Your task to perform on an android device: Show the shopping cart on target.com. Image 0: 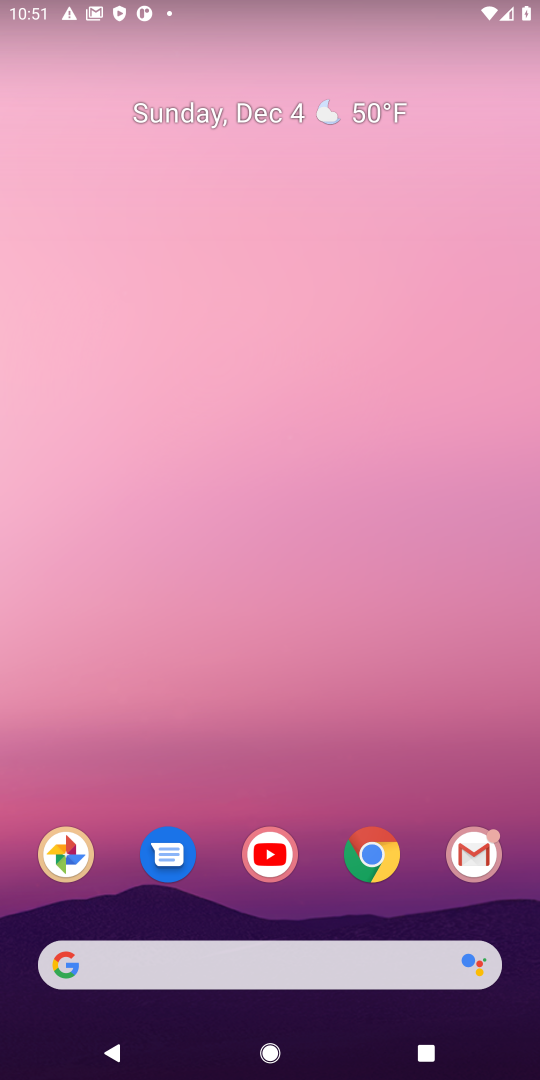
Step 0: click (188, 972)
Your task to perform on an android device: Show the shopping cart on target.com. Image 1: 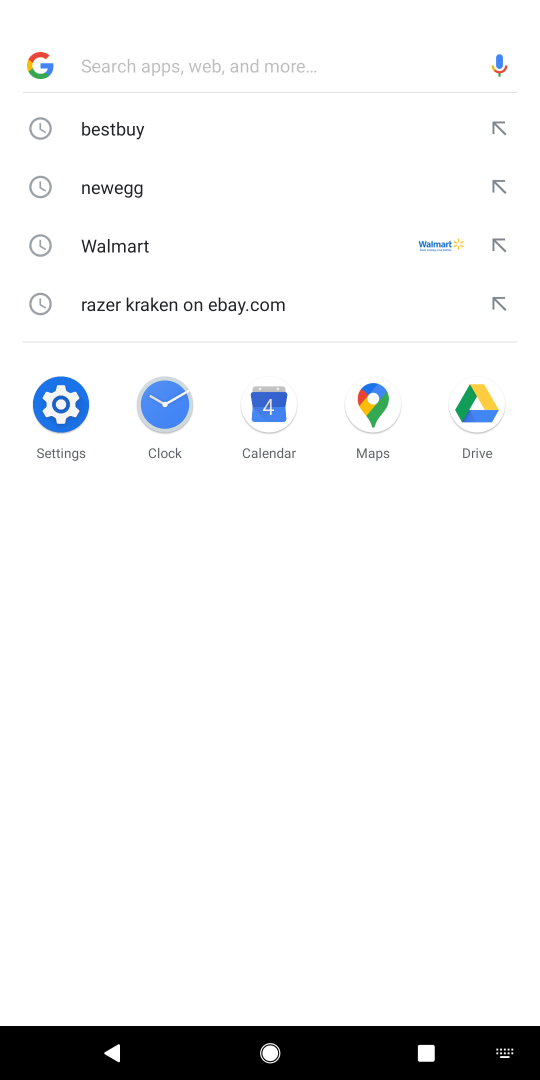
Step 1: type "target"
Your task to perform on an android device: Show the shopping cart on target.com. Image 2: 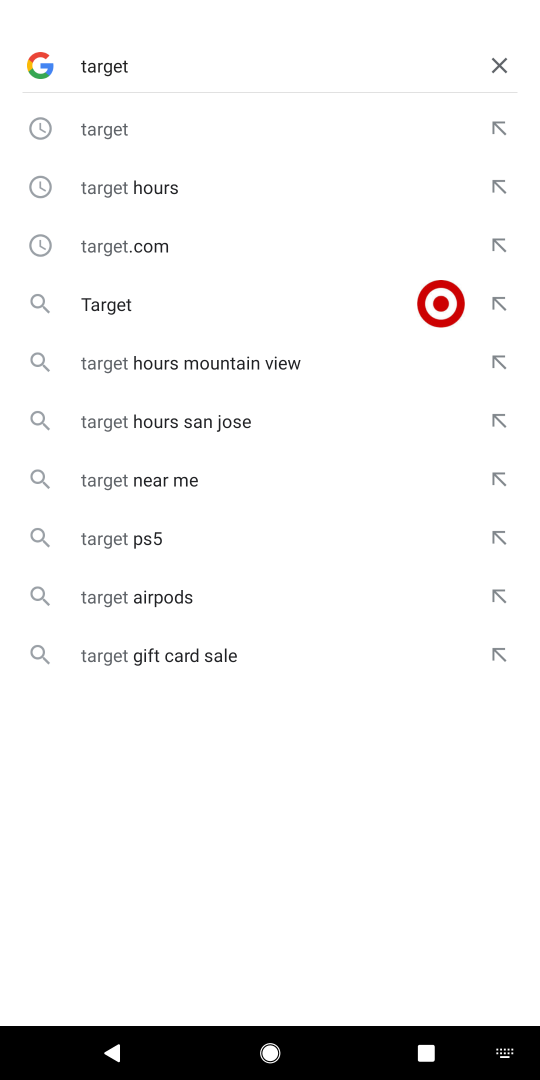
Step 2: click (107, 138)
Your task to perform on an android device: Show the shopping cart on target.com. Image 3: 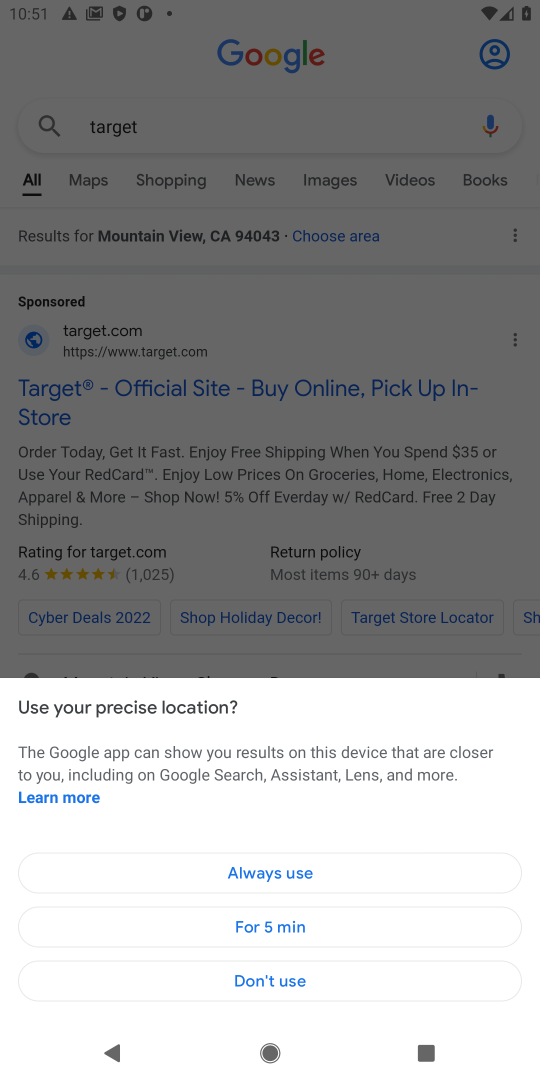
Step 3: click (300, 883)
Your task to perform on an android device: Show the shopping cart on target.com. Image 4: 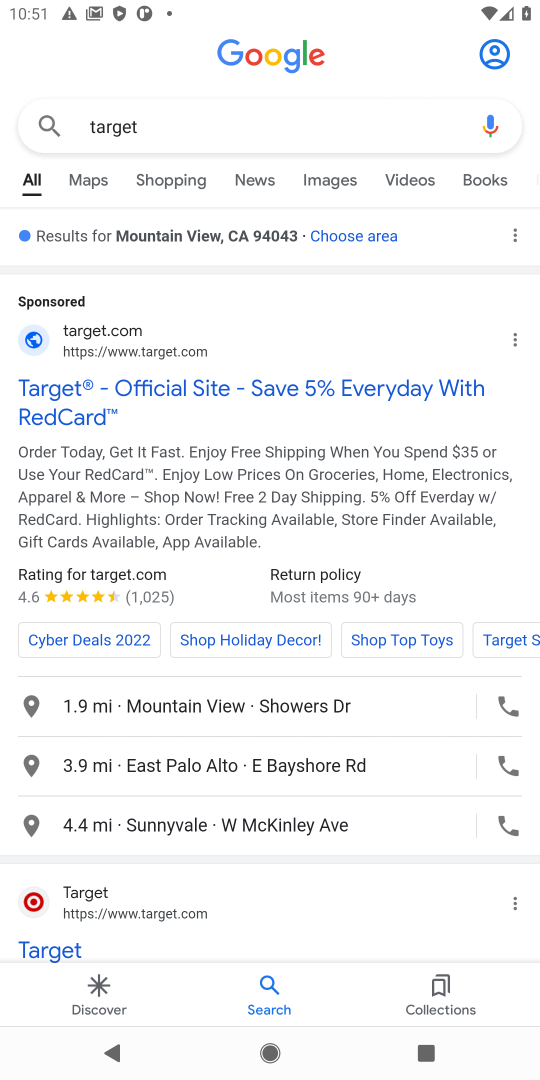
Step 4: click (172, 375)
Your task to perform on an android device: Show the shopping cart on target.com. Image 5: 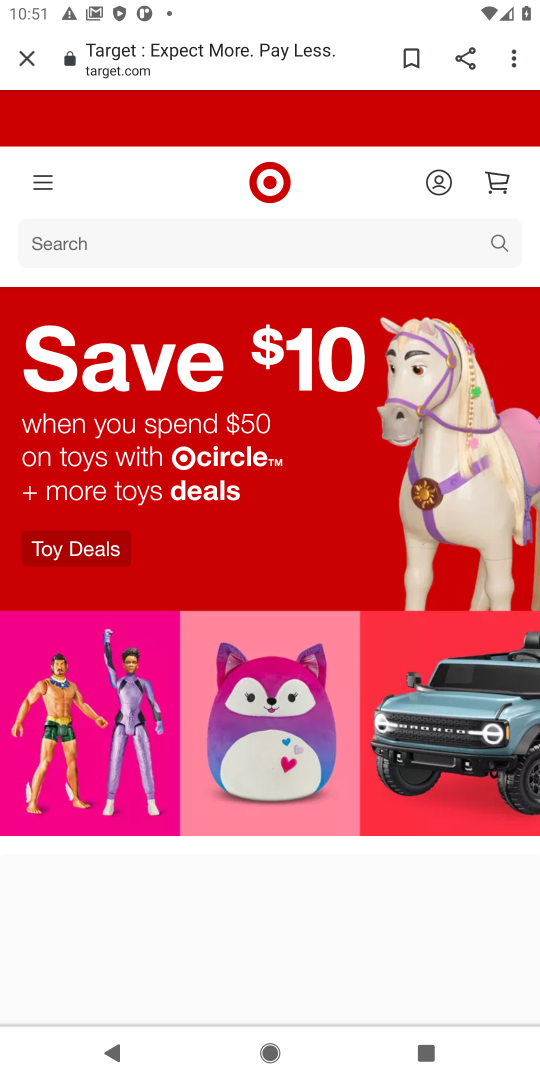
Step 5: task complete